Your task to perform on an android device: toggle pop-ups in chrome Image 0: 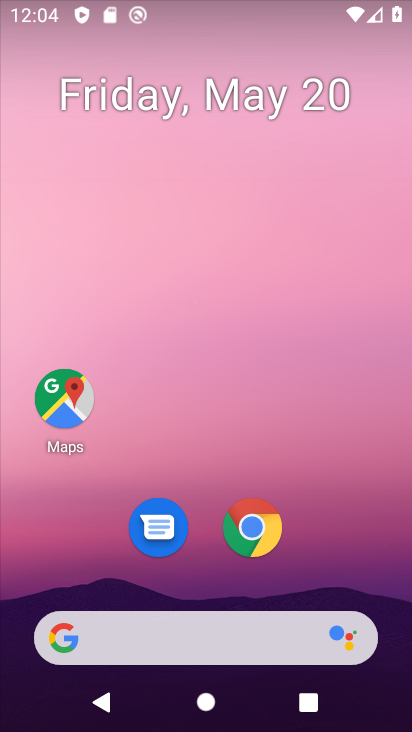
Step 0: press home button
Your task to perform on an android device: toggle pop-ups in chrome Image 1: 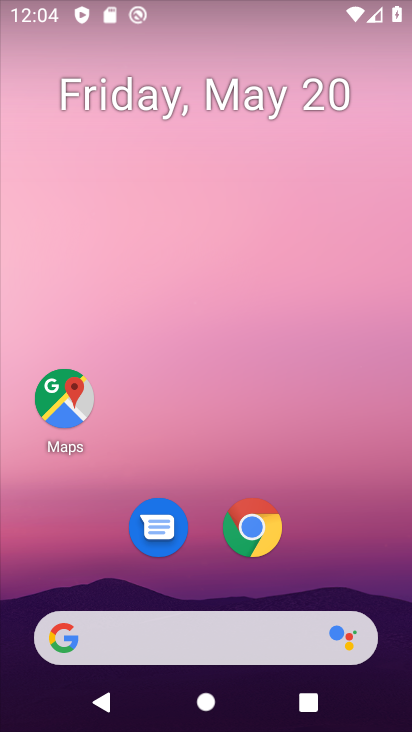
Step 1: click (254, 538)
Your task to perform on an android device: toggle pop-ups in chrome Image 2: 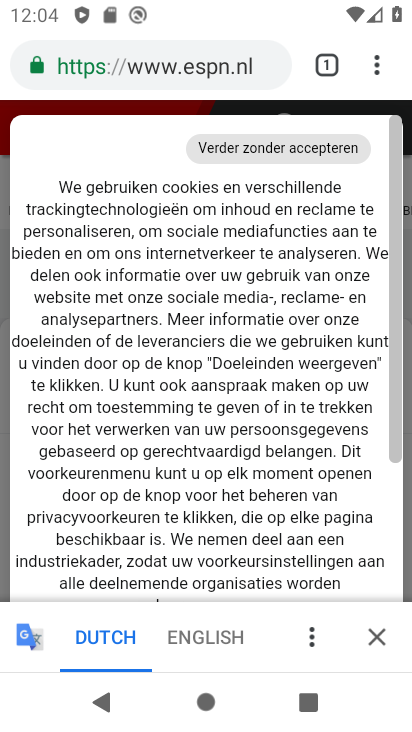
Step 2: drag from (374, 62) to (210, 578)
Your task to perform on an android device: toggle pop-ups in chrome Image 3: 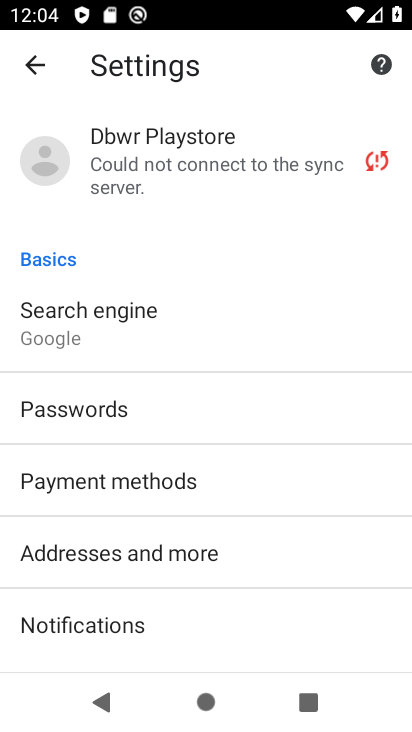
Step 3: drag from (192, 608) to (257, 177)
Your task to perform on an android device: toggle pop-ups in chrome Image 4: 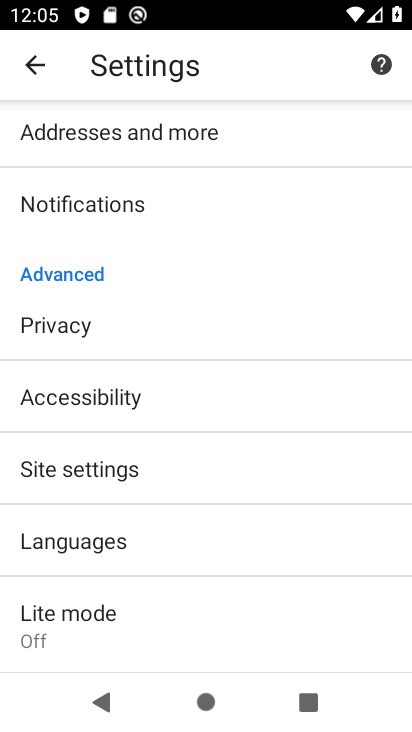
Step 4: click (169, 485)
Your task to perform on an android device: toggle pop-ups in chrome Image 5: 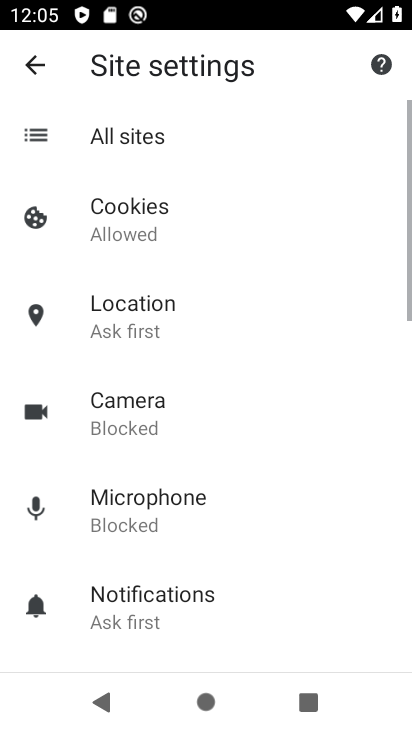
Step 5: drag from (205, 544) to (200, 269)
Your task to perform on an android device: toggle pop-ups in chrome Image 6: 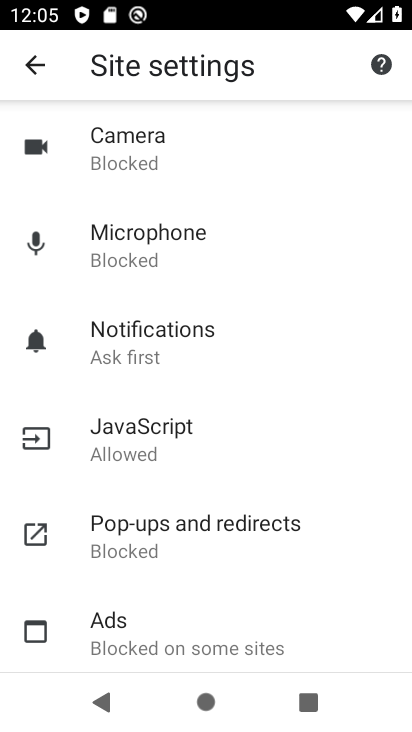
Step 6: click (143, 546)
Your task to perform on an android device: toggle pop-ups in chrome Image 7: 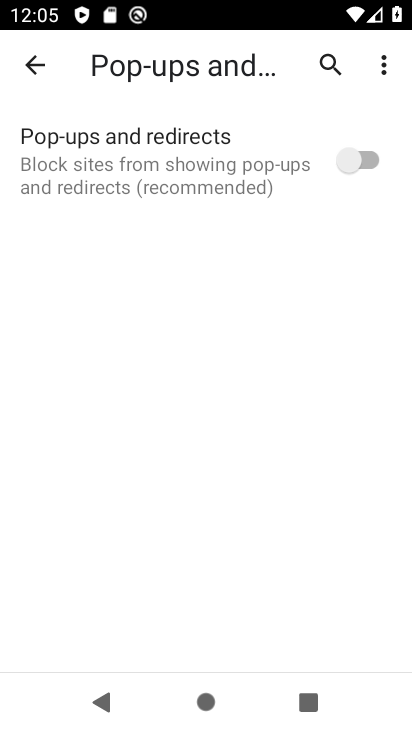
Step 7: click (303, 176)
Your task to perform on an android device: toggle pop-ups in chrome Image 8: 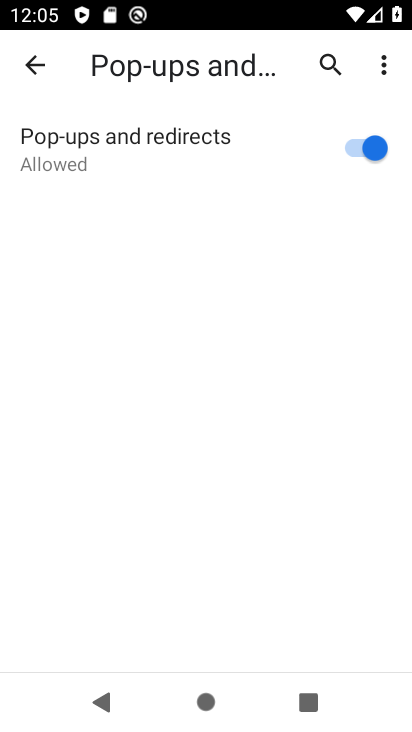
Step 8: task complete